Your task to perform on an android device: turn on data saver in the chrome app Image 0: 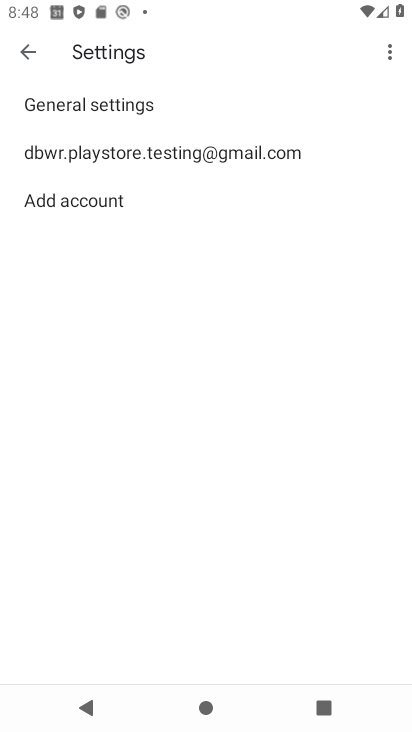
Step 0: press home button
Your task to perform on an android device: turn on data saver in the chrome app Image 1: 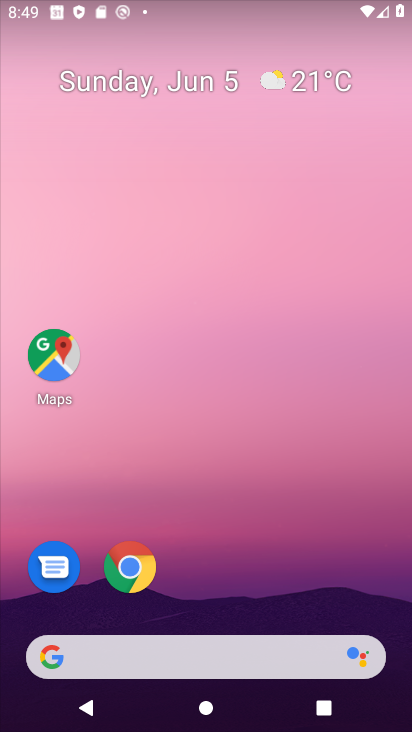
Step 1: click (129, 568)
Your task to perform on an android device: turn on data saver in the chrome app Image 2: 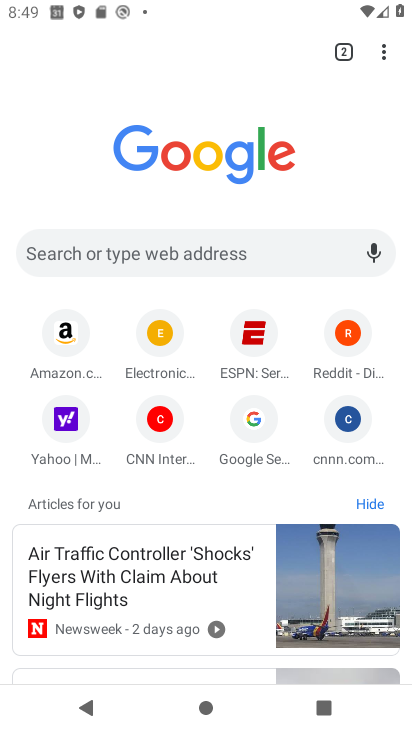
Step 2: click (375, 48)
Your task to perform on an android device: turn on data saver in the chrome app Image 3: 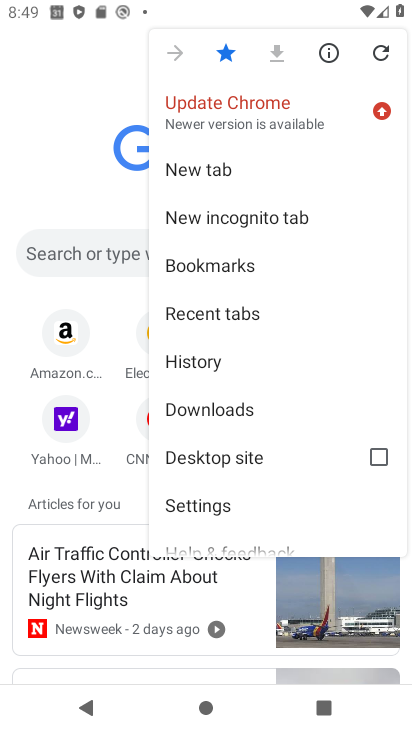
Step 3: click (211, 502)
Your task to perform on an android device: turn on data saver in the chrome app Image 4: 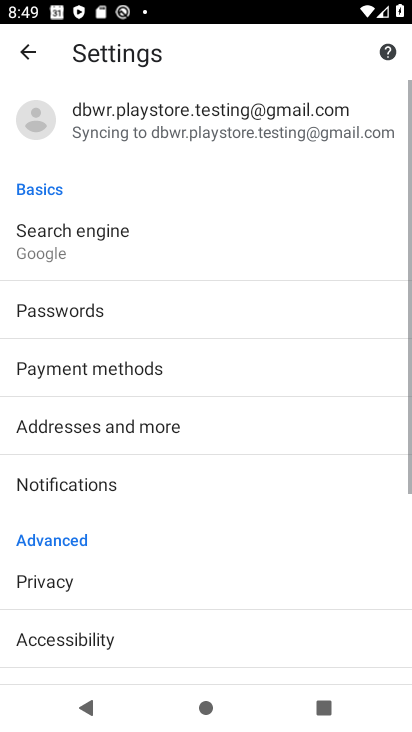
Step 4: drag from (186, 650) to (184, 362)
Your task to perform on an android device: turn on data saver in the chrome app Image 5: 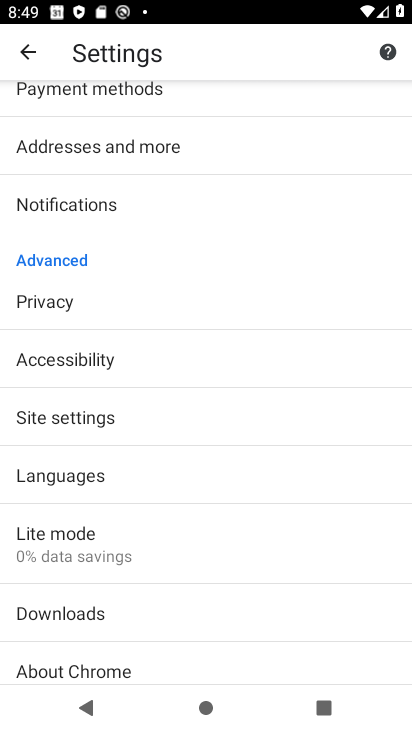
Step 5: click (60, 554)
Your task to perform on an android device: turn on data saver in the chrome app Image 6: 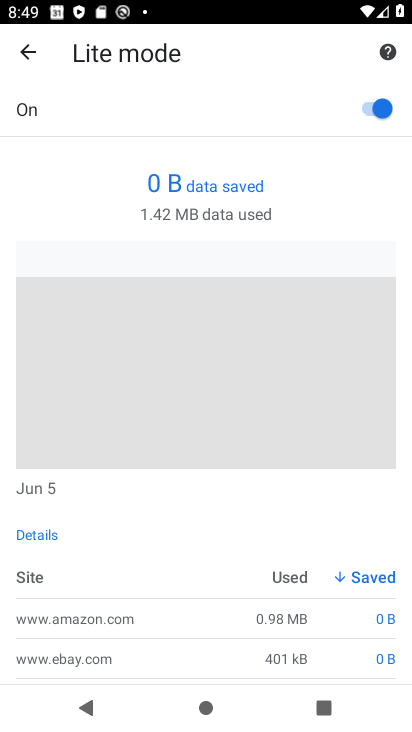
Step 6: task complete